Your task to perform on an android device: Search for sushi restaurants on Maps Image 0: 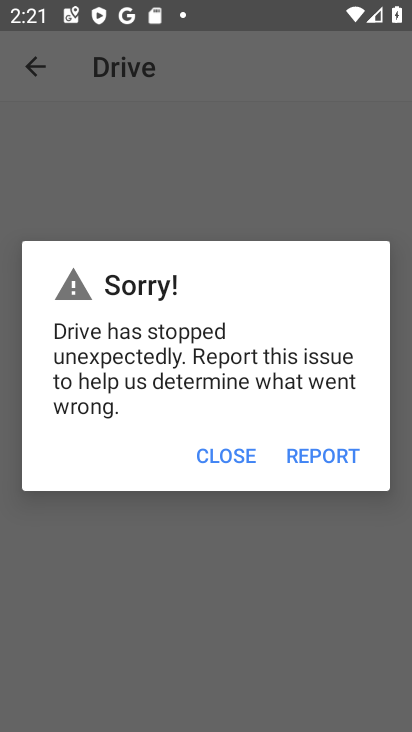
Step 0: press home button
Your task to perform on an android device: Search for sushi restaurants on Maps Image 1: 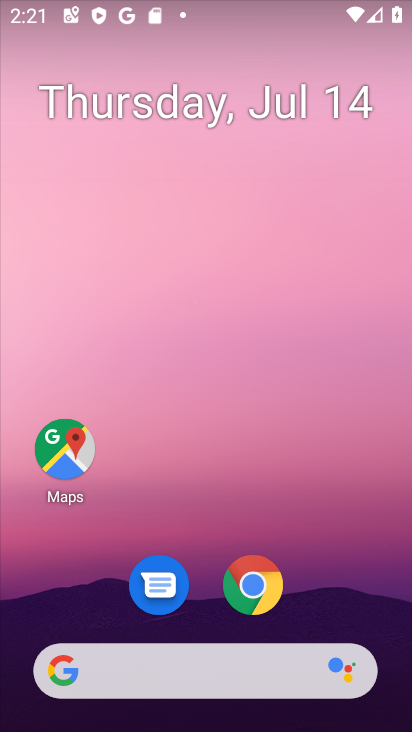
Step 1: click (60, 464)
Your task to perform on an android device: Search for sushi restaurants on Maps Image 2: 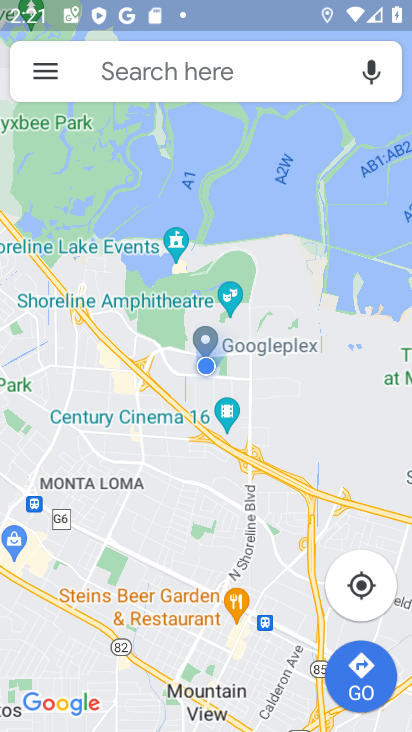
Step 2: click (264, 69)
Your task to perform on an android device: Search for sushi restaurants on Maps Image 3: 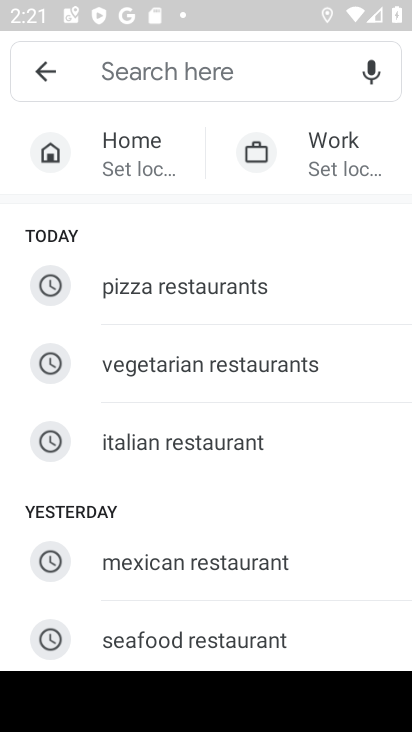
Step 3: drag from (228, 583) to (270, 298)
Your task to perform on an android device: Search for sushi restaurants on Maps Image 4: 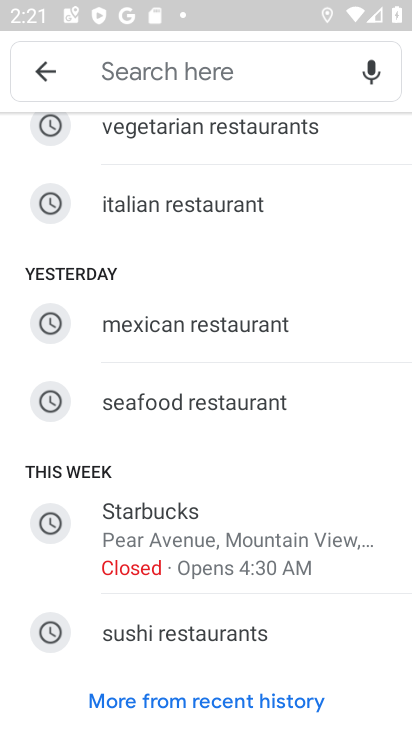
Step 4: click (218, 624)
Your task to perform on an android device: Search for sushi restaurants on Maps Image 5: 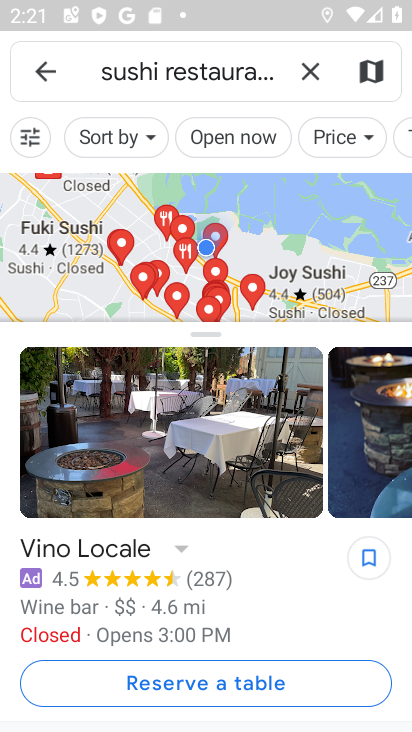
Step 5: task complete